Your task to perform on an android device: Open internet settings Image 0: 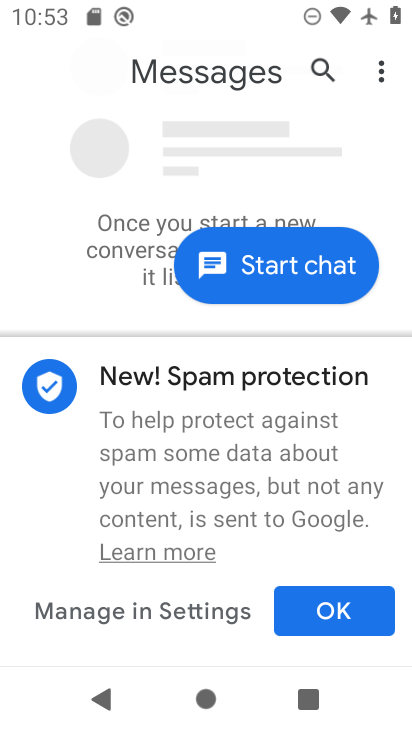
Step 0: press back button
Your task to perform on an android device: Open internet settings Image 1: 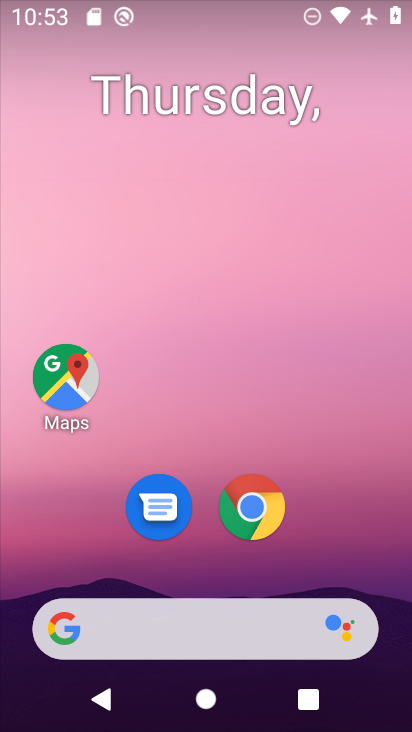
Step 1: drag from (328, 549) to (325, 60)
Your task to perform on an android device: Open internet settings Image 2: 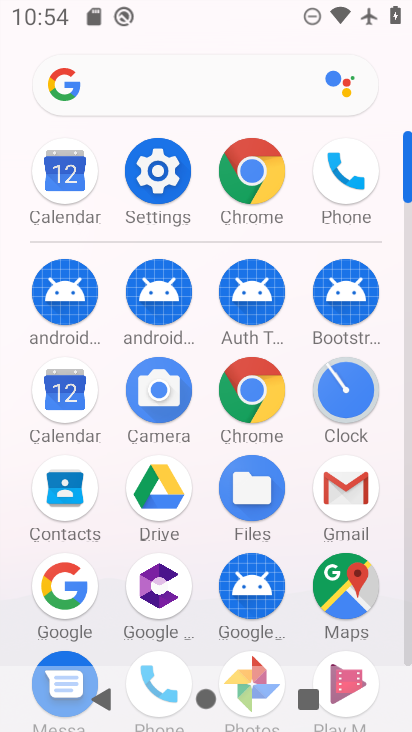
Step 2: drag from (9, 568) to (29, 211)
Your task to perform on an android device: Open internet settings Image 3: 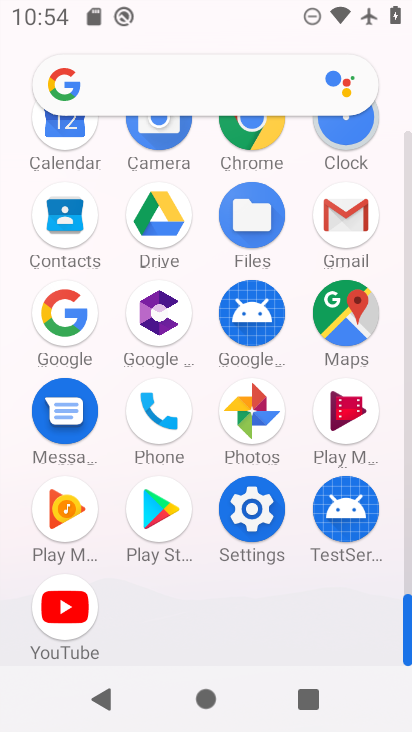
Step 3: click (247, 509)
Your task to perform on an android device: Open internet settings Image 4: 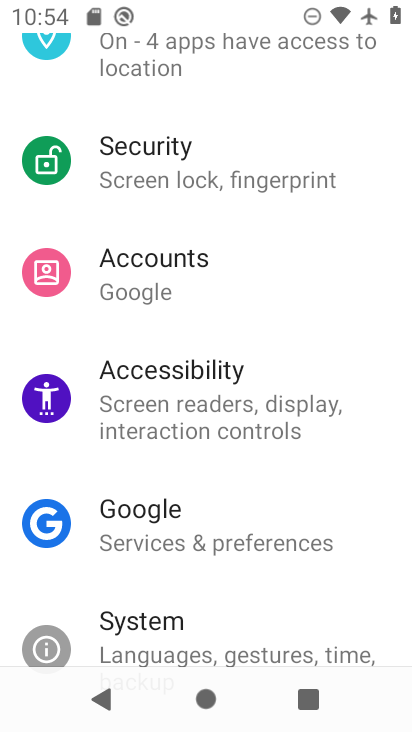
Step 4: drag from (265, 194) to (262, 568)
Your task to perform on an android device: Open internet settings Image 5: 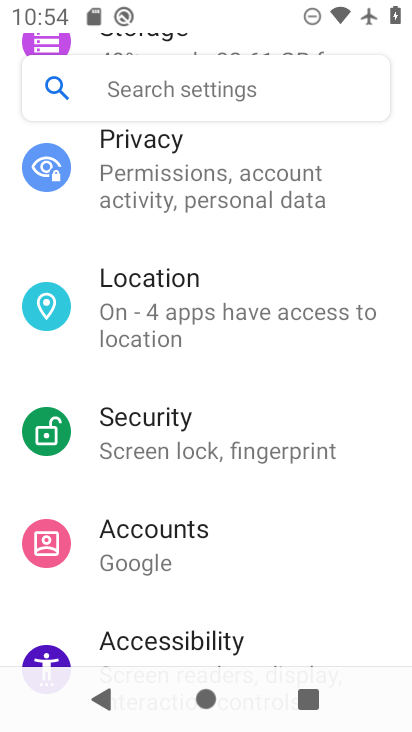
Step 5: drag from (283, 247) to (254, 615)
Your task to perform on an android device: Open internet settings Image 6: 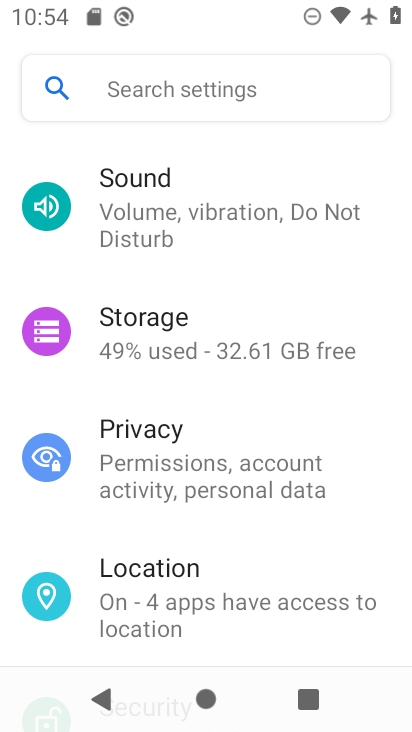
Step 6: drag from (300, 255) to (267, 626)
Your task to perform on an android device: Open internet settings Image 7: 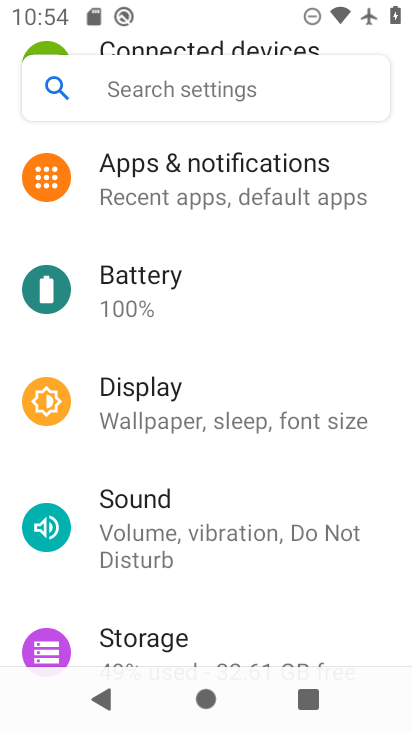
Step 7: drag from (256, 226) to (246, 595)
Your task to perform on an android device: Open internet settings Image 8: 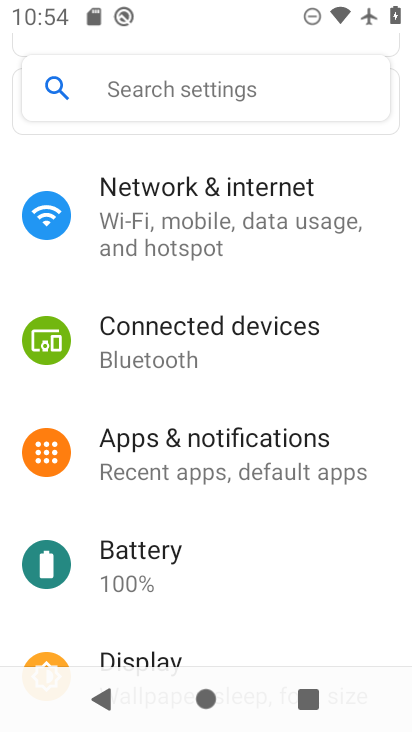
Step 8: drag from (293, 228) to (290, 574)
Your task to perform on an android device: Open internet settings Image 9: 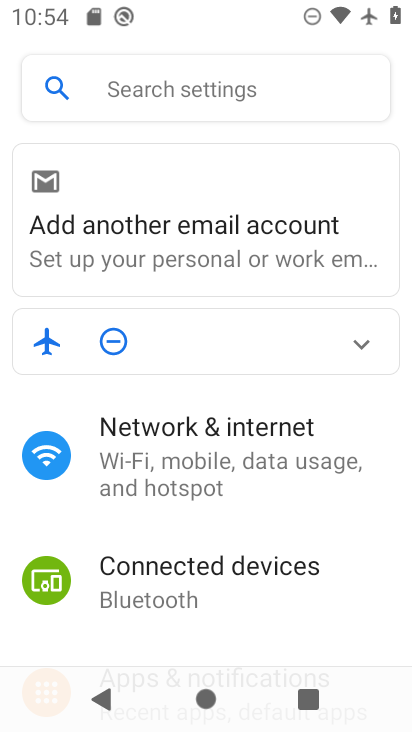
Step 9: click (187, 472)
Your task to perform on an android device: Open internet settings Image 10: 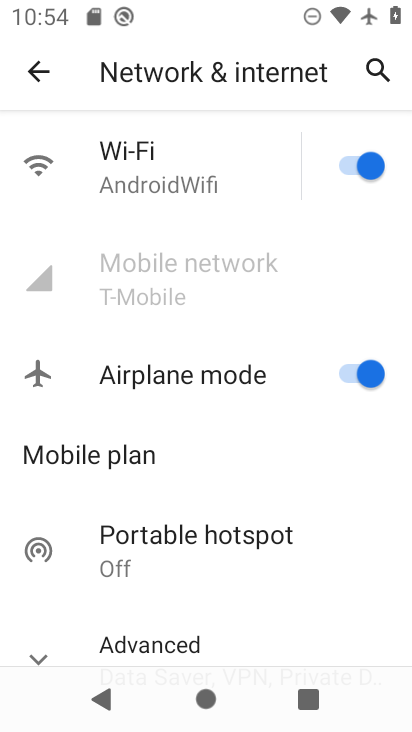
Step 10: drag from (210, 547) to (240, 229)
Your task to perform on an android device: Open internet settings Image 11: 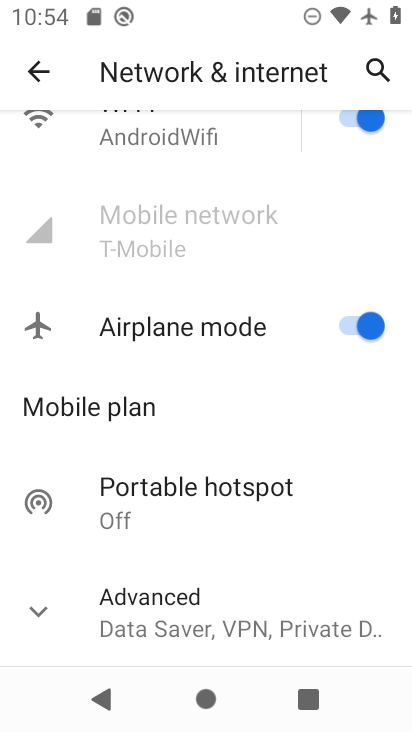
Step 11: click (28, 608)
Your task to perform on an android device: Open internet settings Image 12: 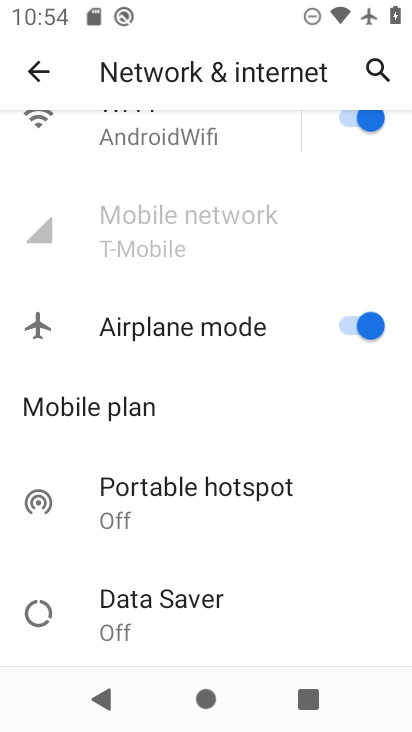
Step 12: task complete